Your task to perform on an android device: turn on showing notifications on the lock screen Image 0: 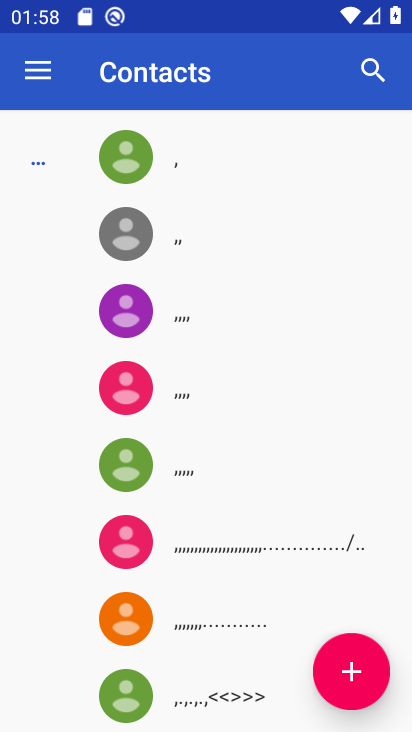
Step 0: press home button
Your task to perform on an android device: turn on showing notifications on the lock screen Image 1: 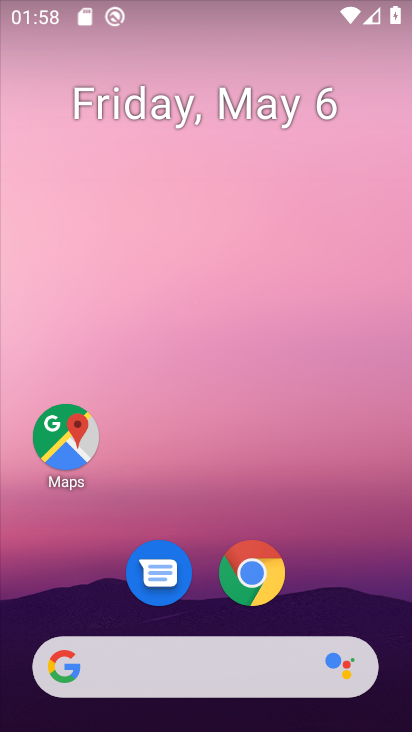
Step 1: drag from (326, 590) to (360, 207)
Your task to perform on an android device: turn on showing notifications on the lock screen Image 2: 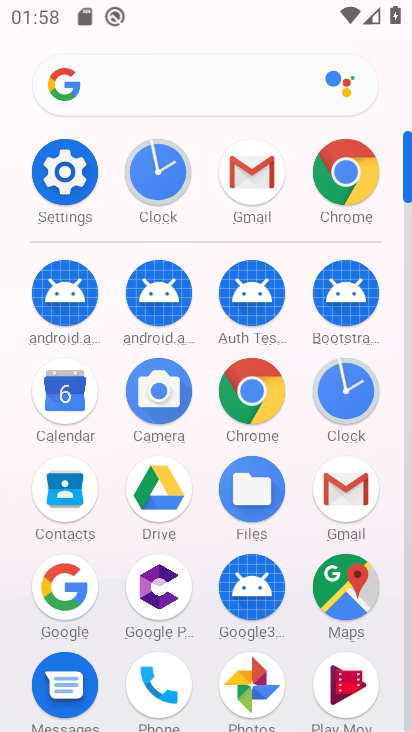
Step 2: click (73, 161)
Your task to perform on an android device: turn on showing notifications on the lock screen Image 3: 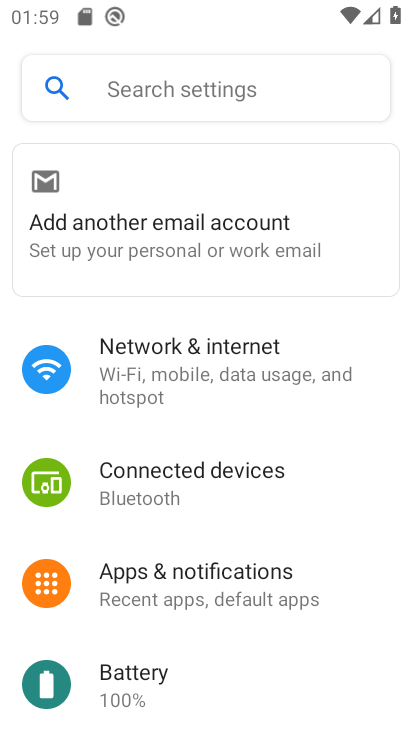
Step 3: click (225, 579)
Your task to perform on an android device: turn on showing notifications on the lock screen Image 4: 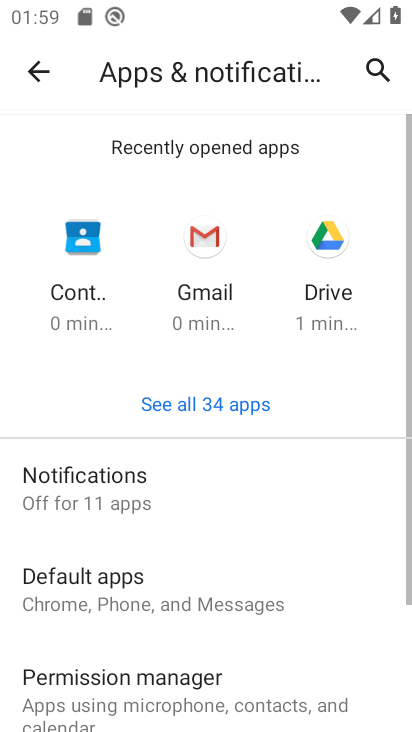
Step 4: click (132, 499)
Your task to perform on an android device: turn on showing notifications on the lock screen Image 5: 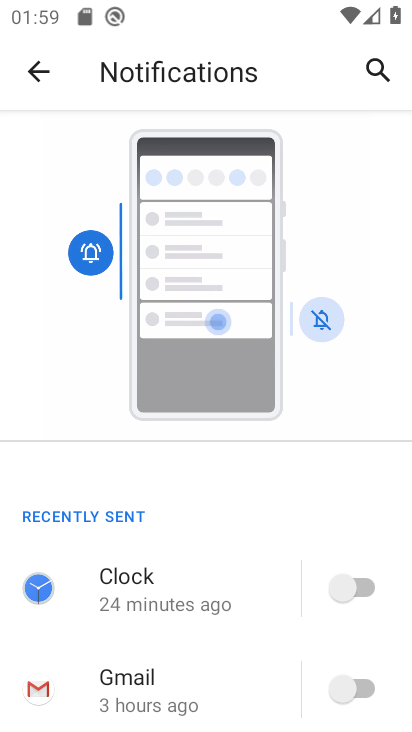
Step 5: drag from (276, 555) to (353, 129)
Your task to perform on an android device: turn on showing notifications on the lock screen Image 6: 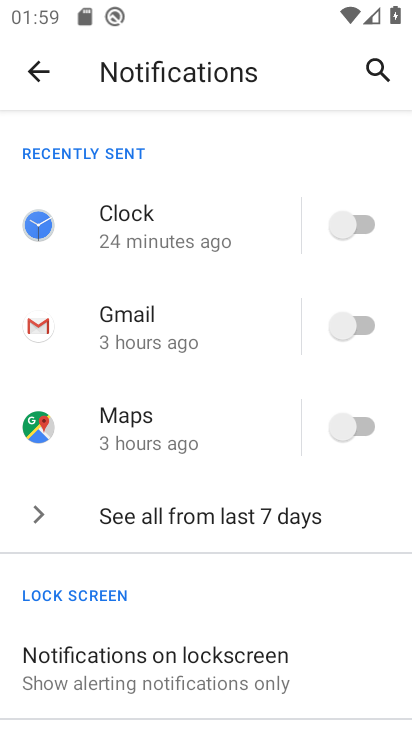
Step 6: click (124, 690)
Your task to perform on an android device: turn on showing notifications on the lock screen Image 7: 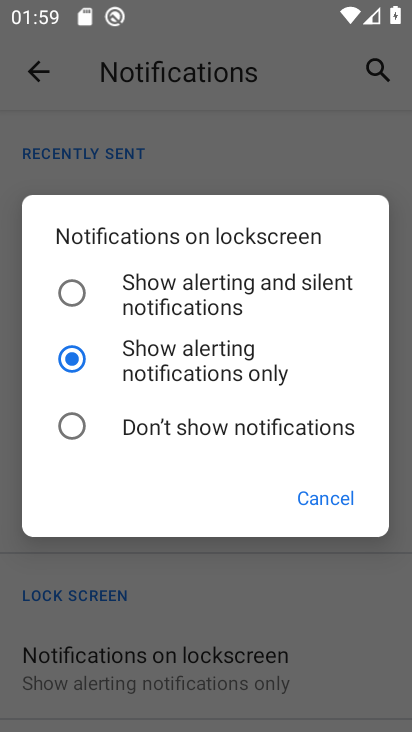
Step 7: click (168, 345)
Your task to perform on an android device: turn on showing notifications on the lock screen Image 8: 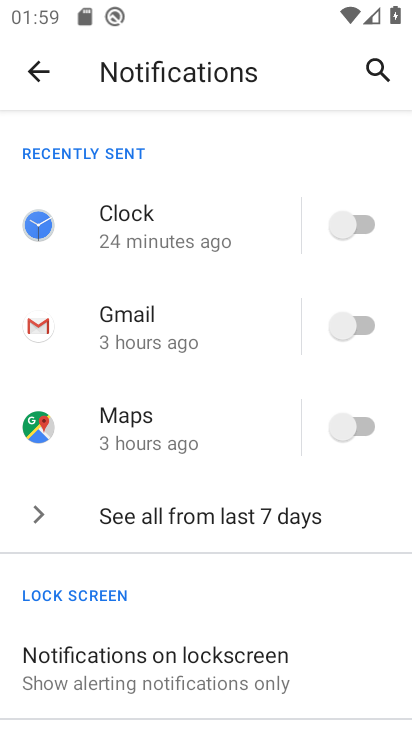
Step 8: task complete